Your task to perform on an android device: View the shopping cart on costco. Add duracell triple a to the cart on costco Image 0: 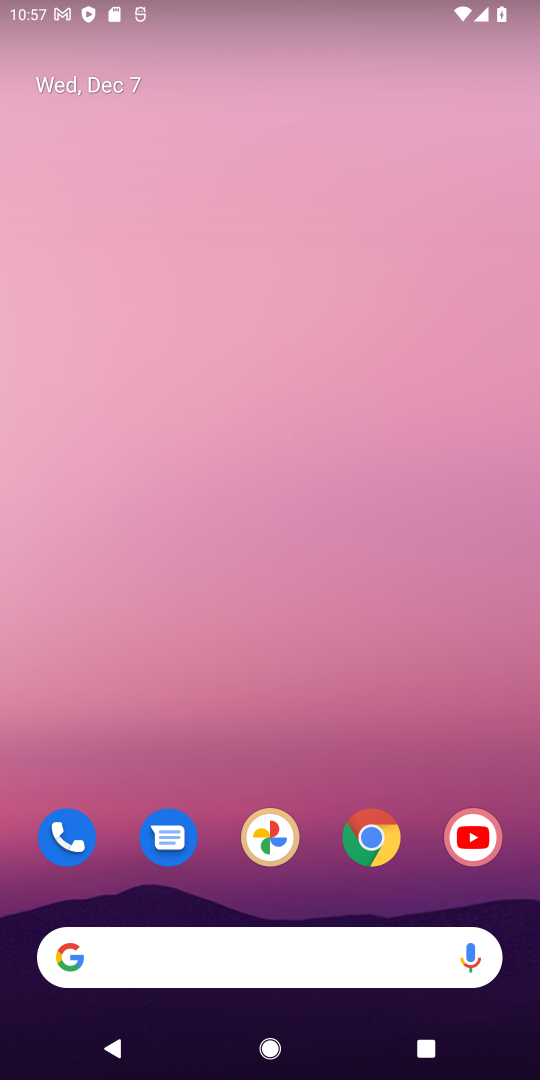
Step 0: click (371, 838)
Your task to perform on an android device: View the shopping cart on costco. Add duracell triple a to the cart on costco Image 1: 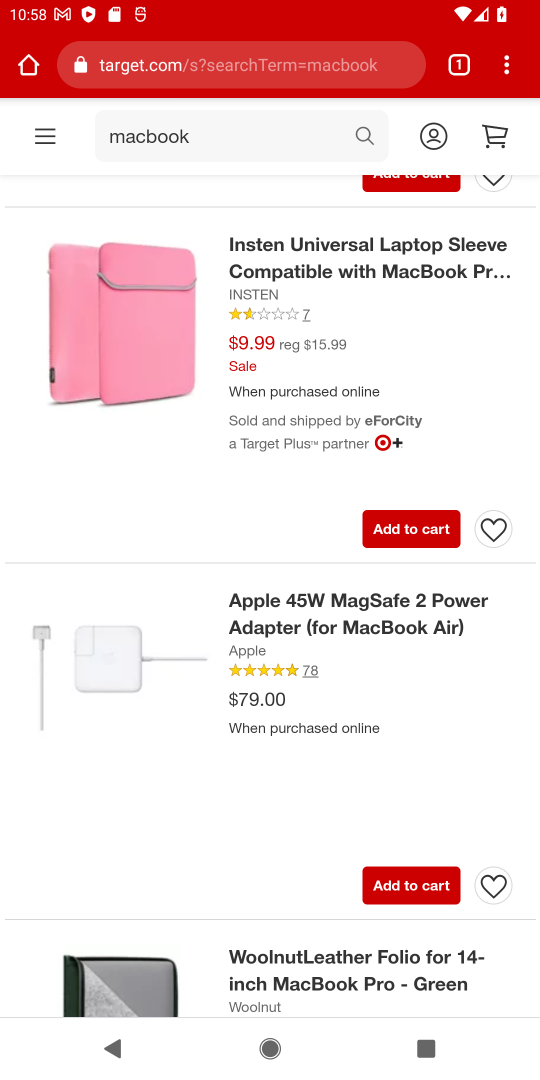
Step 1: click (274, 69)
Your task to perform on an android device: View the shopping cart on costco. Add duracell triple a to the cart on costco Image 2: 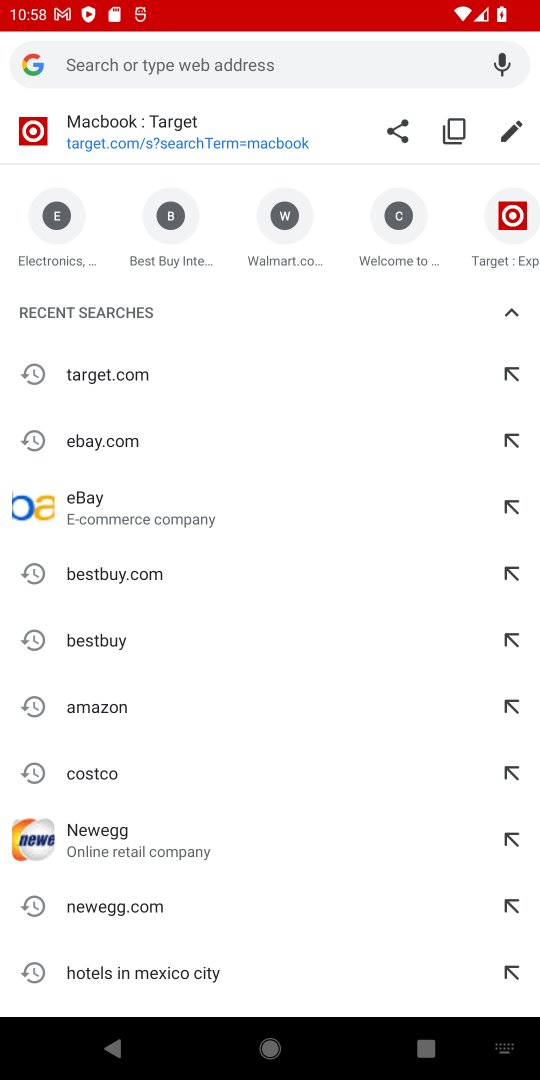
Step 2: type "costco"
Your task to perform on an android device: View the shopping cart on costco. Add duracell triple a to the cart on costco Image 3: 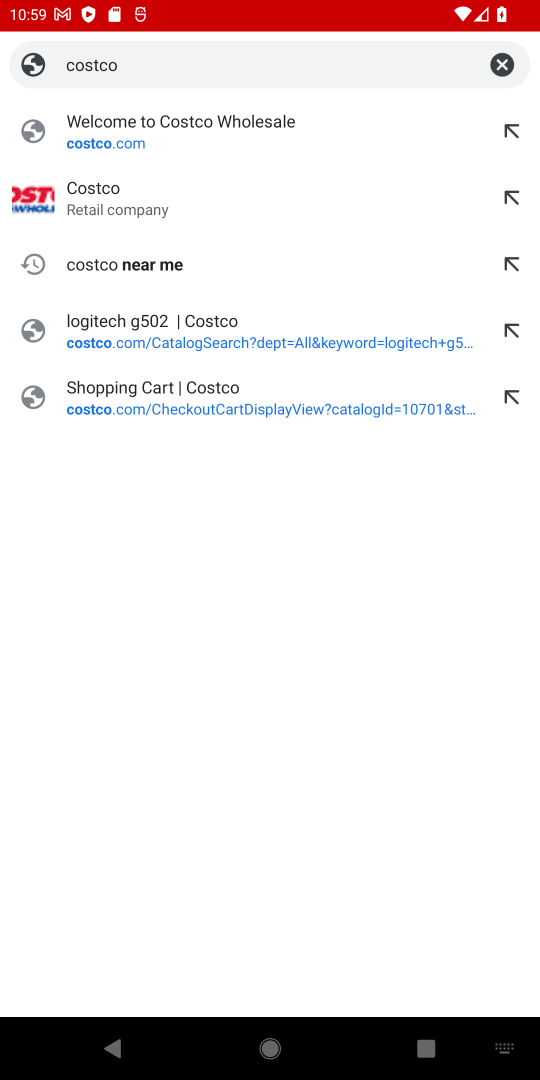
Step 3: click (170, 124)
Your task to perform on an android device: View the shopping cart on costco. Add duracell triple a to the cart on costco Image 4: 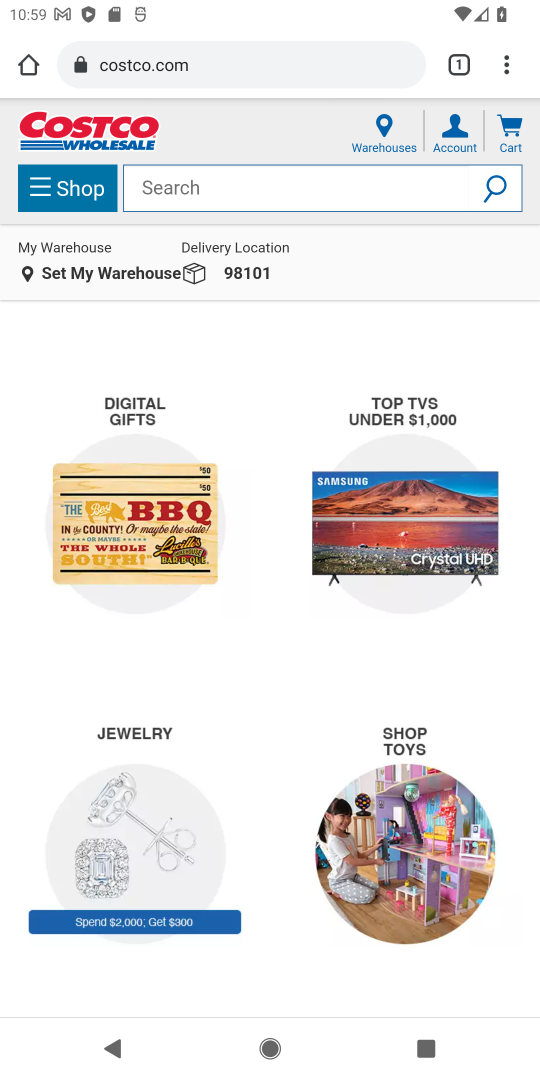
Step 4: click (504, 134)
Your task to perform on an android device: View the shopping cart on costco. Add duracell triple a to the cart on costco Image 5: 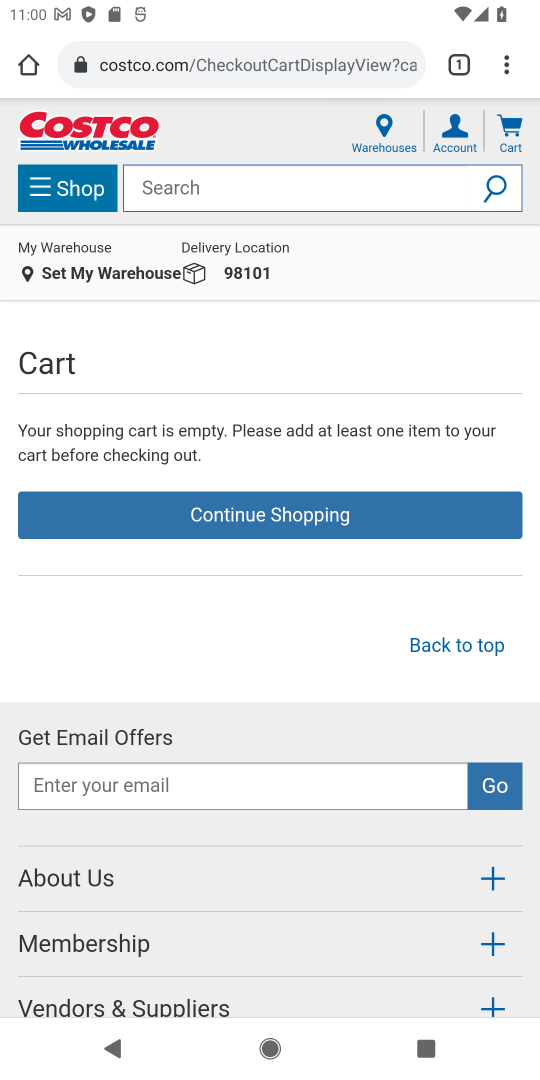
Step 5: click (311, 188)
Your task to perform on an android device: View the shopping cart on costco. Add duracell triple a to the cart on costco Image 6: 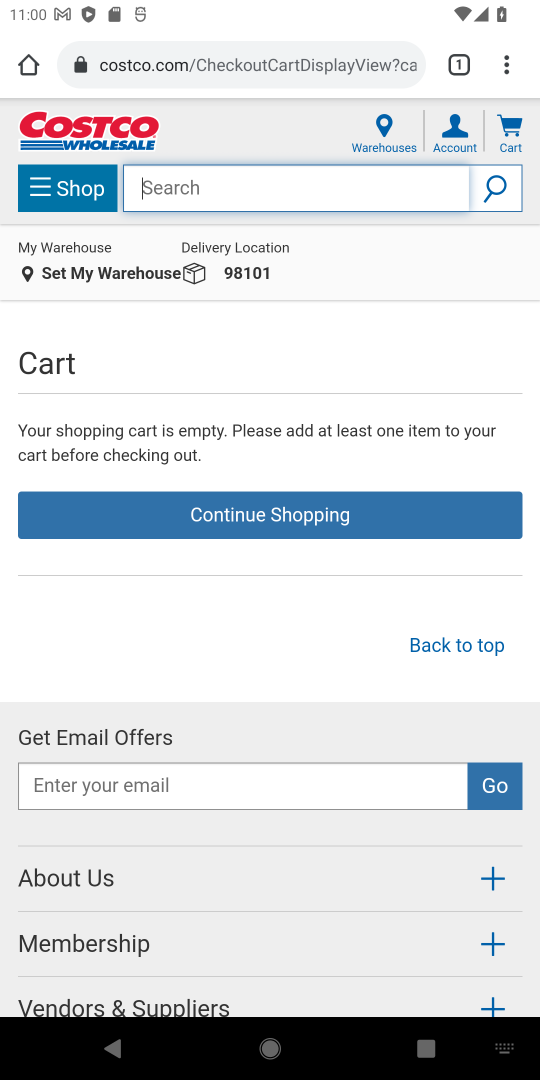
Step 6: type "duracell triple"
Your task to perform on an android device: View the shopping cart on costco. Add duracell triple a to the cart on costco Image 7: 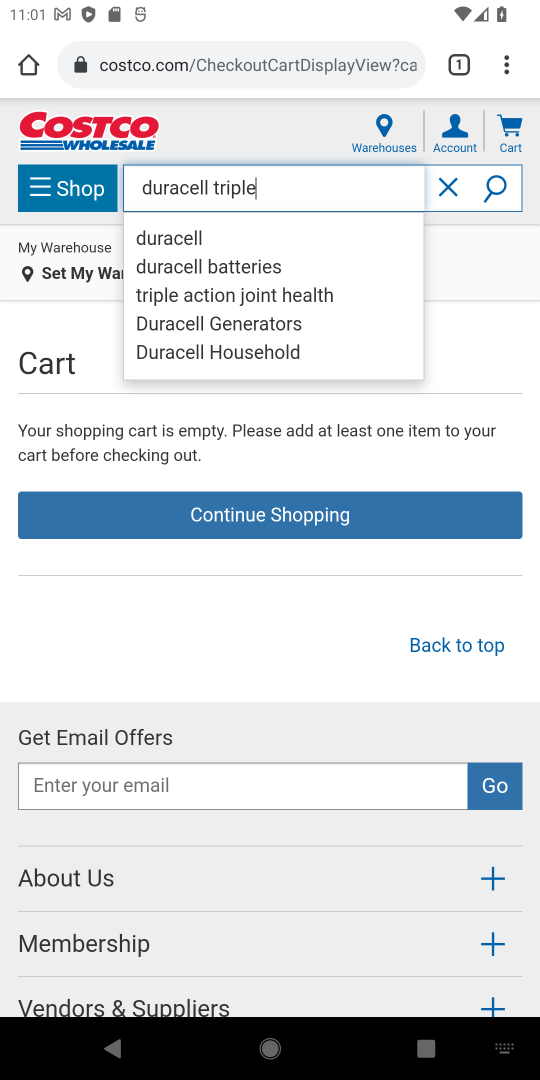
Step 7: click (497, 190)
Your task to perform on an android device: View the shopping cart on costco. Add duracell triple a to the cart on costco Image 8: 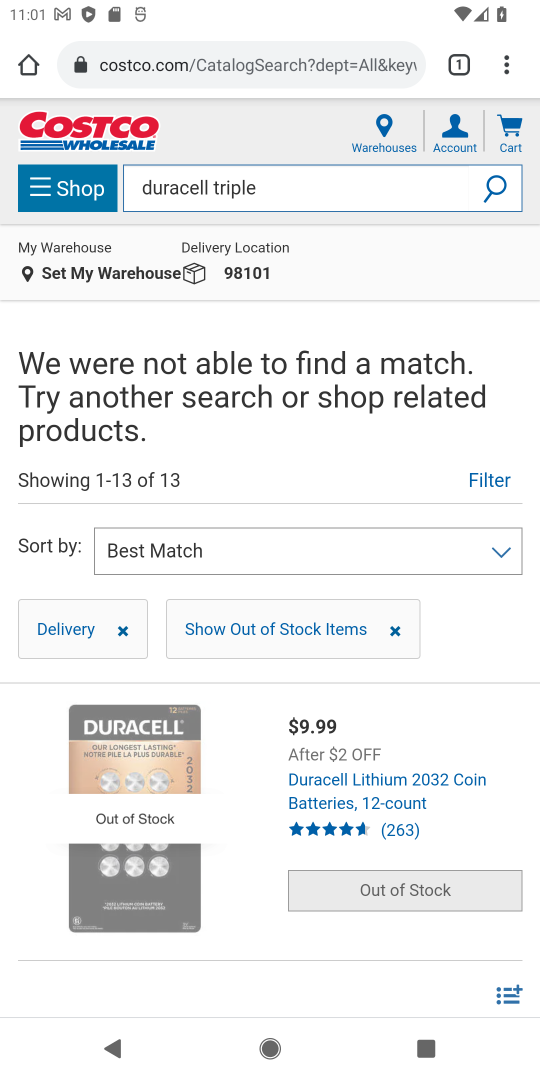
Step 8: task complete